Your task to perform on an android device: see tabs open on other devices in the chrome app Image 0: 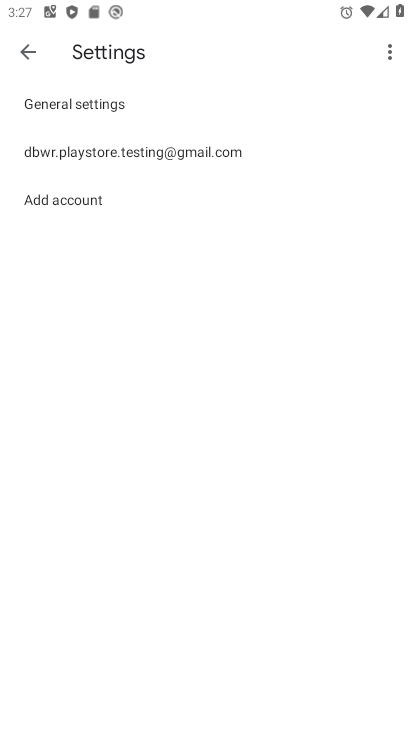
Step 0: drag from (212, 636) to (215, 296)
Your task to perform on an android device: see tabs open on other devices in the chrome app Image 1: 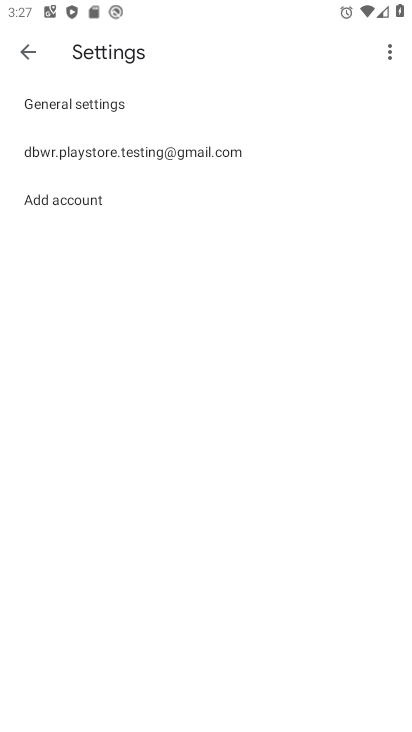
Step 1: press home button
Your task to perform on an android device: see tabs open on other devices in the chrome app Image 2: 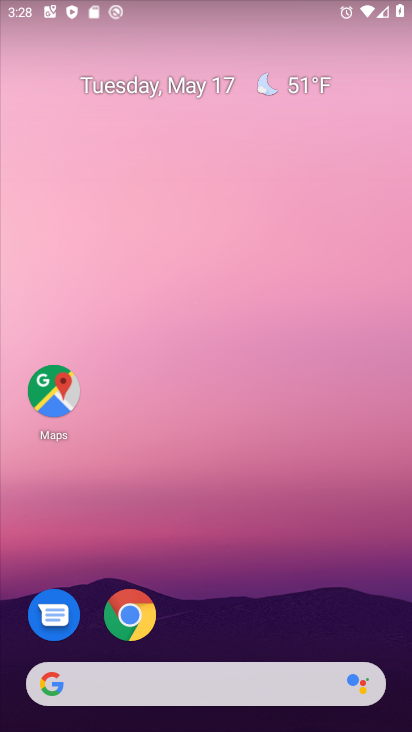
Step 2: click (129, 608)
Your task to perform on an android device: see tabs open on other devices in the chrome app Image 3: 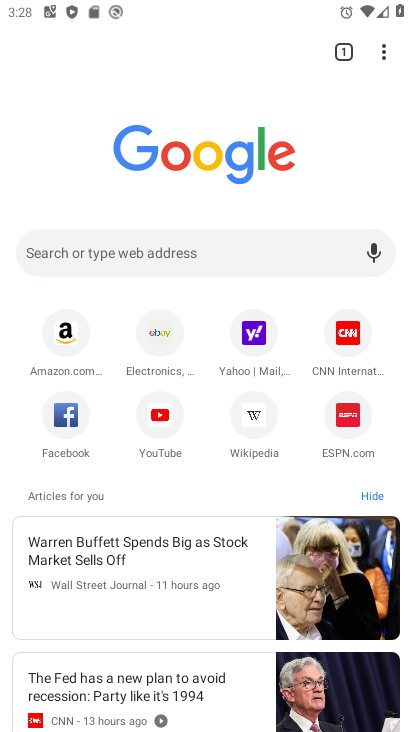
Step 3: click (394, 43)
Your task to perform on an android device: see tabs open on other devices in the chrome app Image 4: 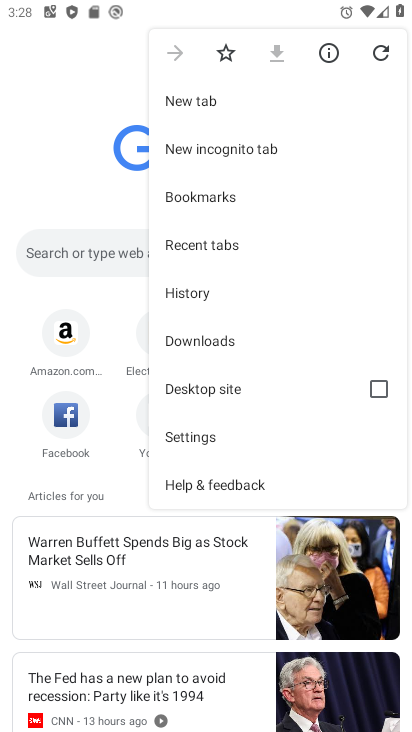
Step 4: click (245, 242)
Your task to perform on an android device: see tabs open on other devices in the chrome app Image 5: 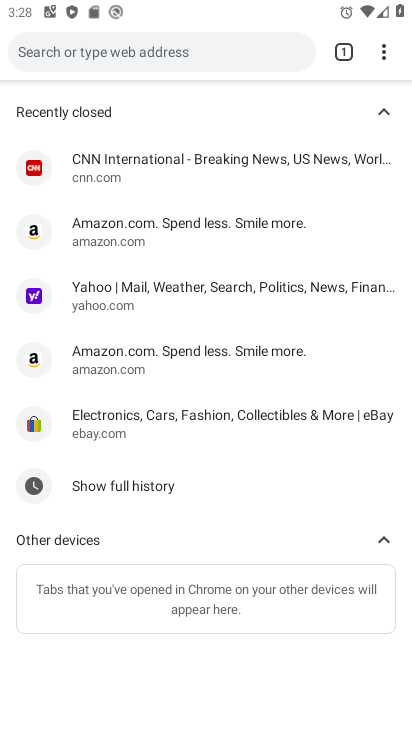
Step 5: task complete